Your task to perform on an android device: Open Youtube and go to "Your channel" Image 0: 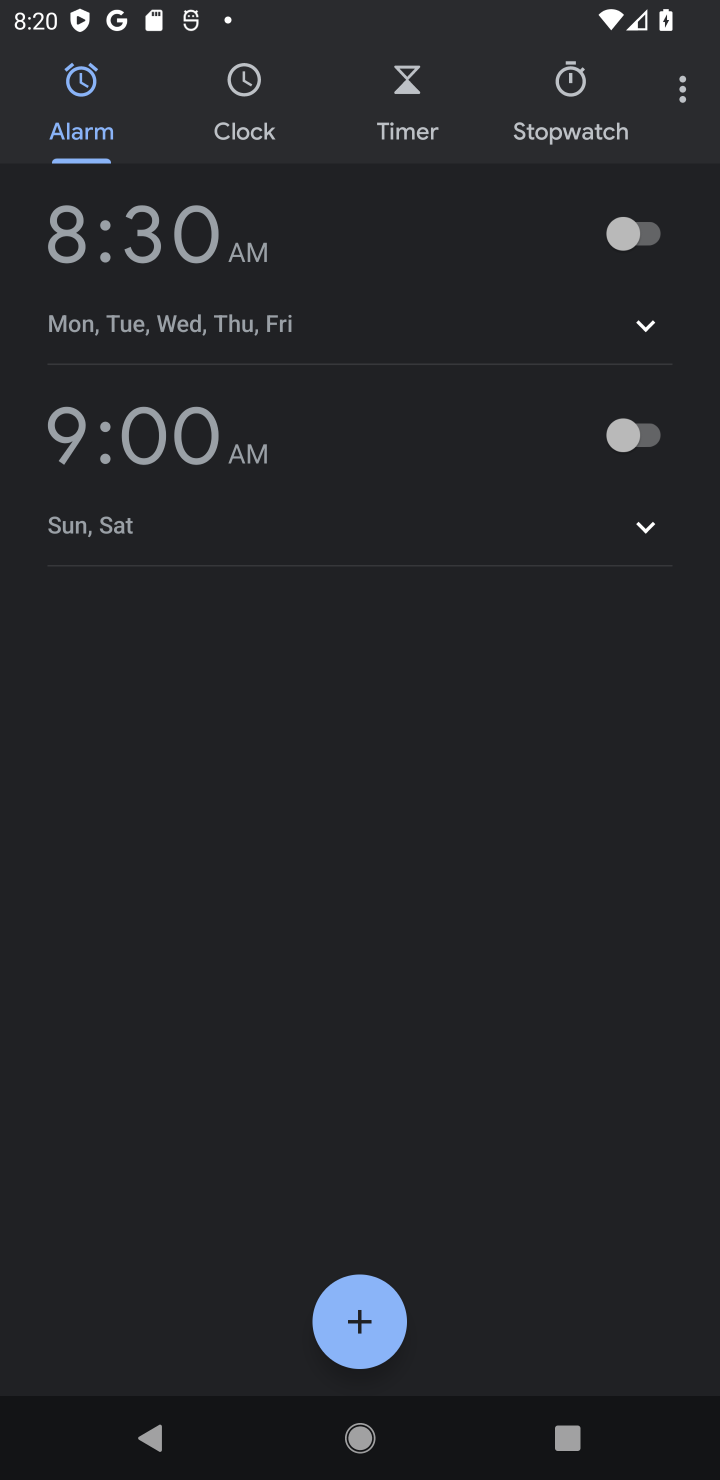
Step 0: press home button
Your task to perform on an android device: Open Youtube and go to "Your channel" Image 1: 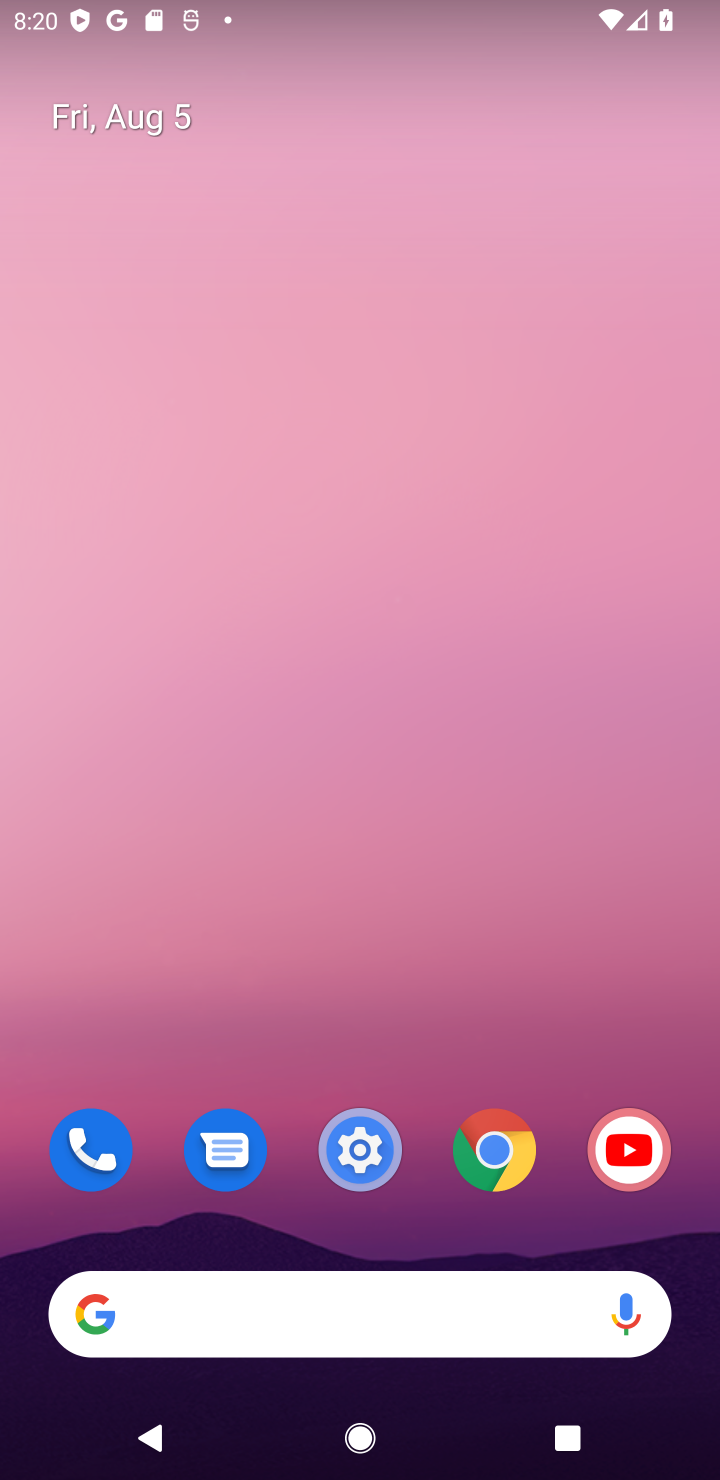
Step 1: drag from (413, 1108) to (427, 520)
Your task to perform on an android device: Open Youtube and go to "Your channel" Image 2: 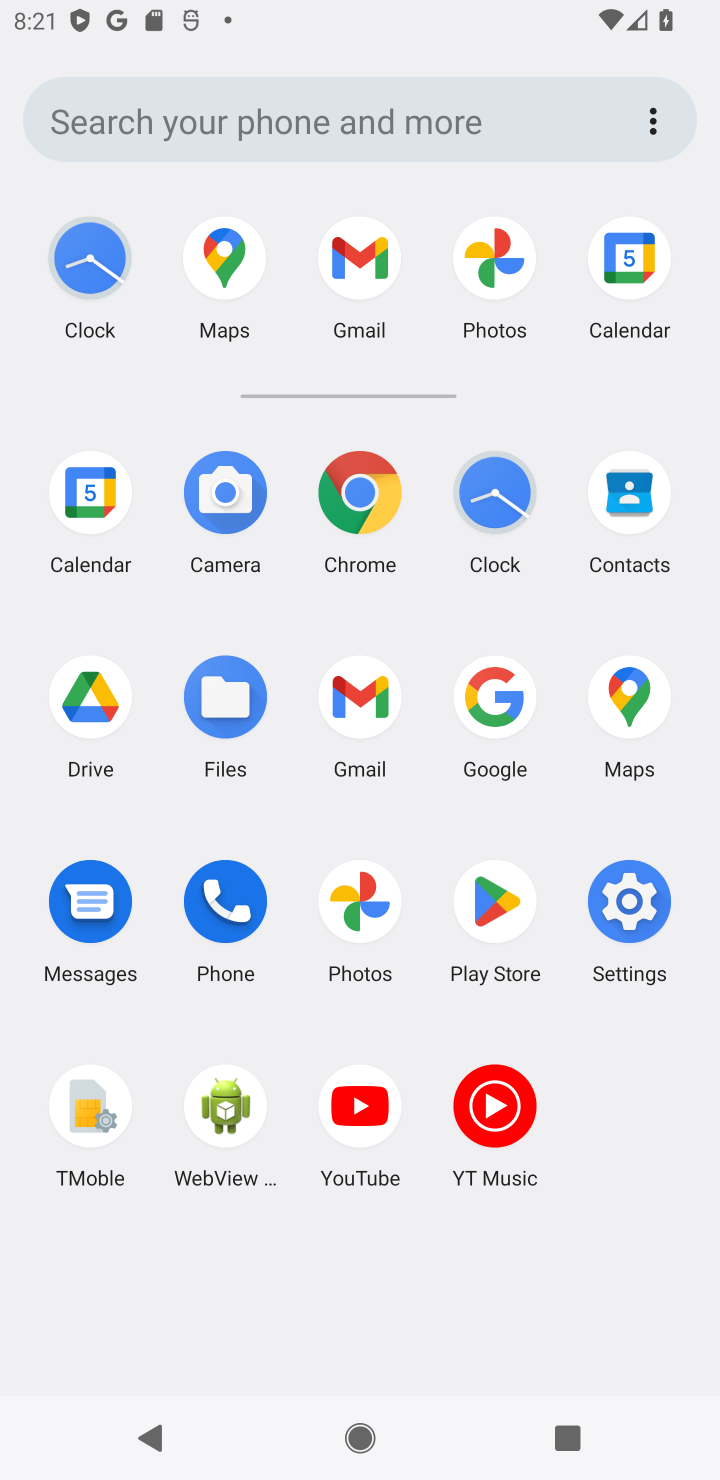
Step 2: click (354, 1120)
Your task to perform on an android device: Open Youtube and go to "Your channel" Image 3: 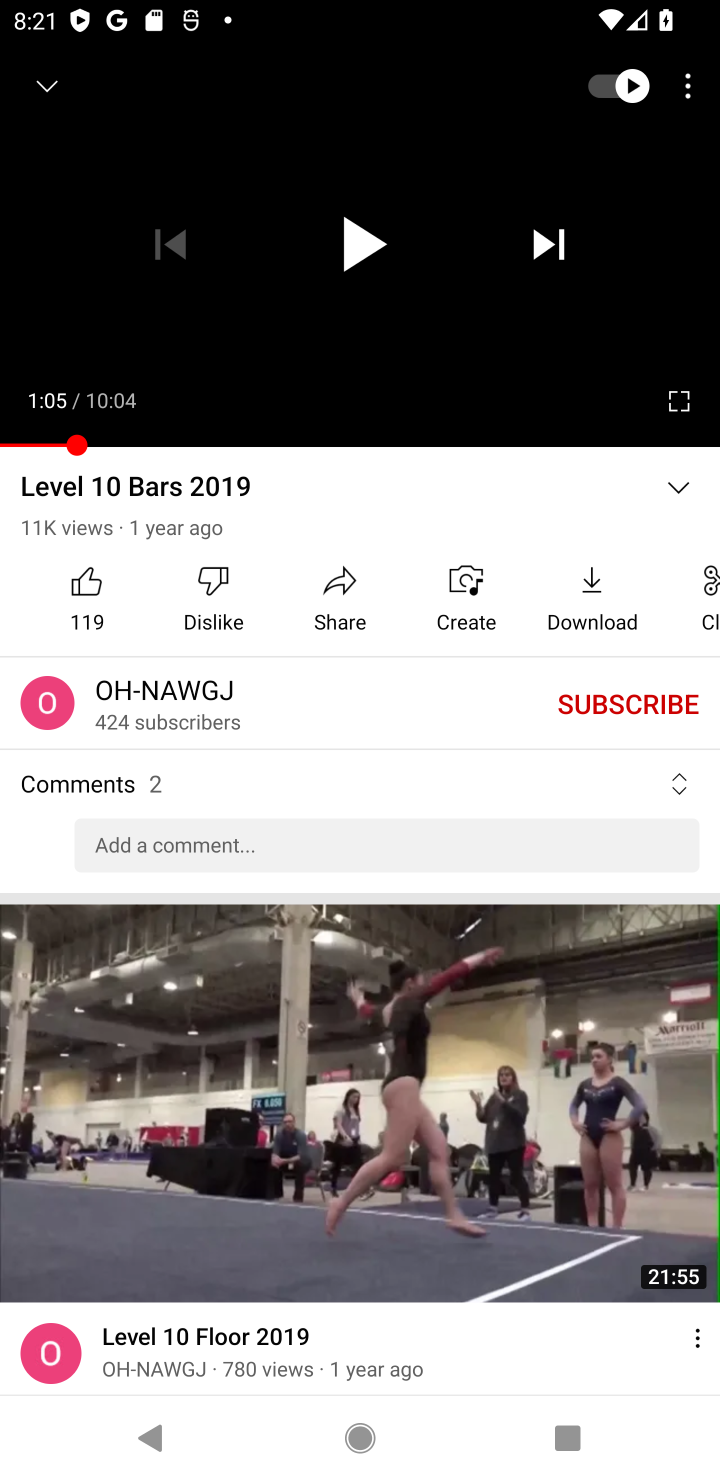
Step 3: press back button
Your task to perform on an android device: Open Youtube and go to "Your channel" Image 4: 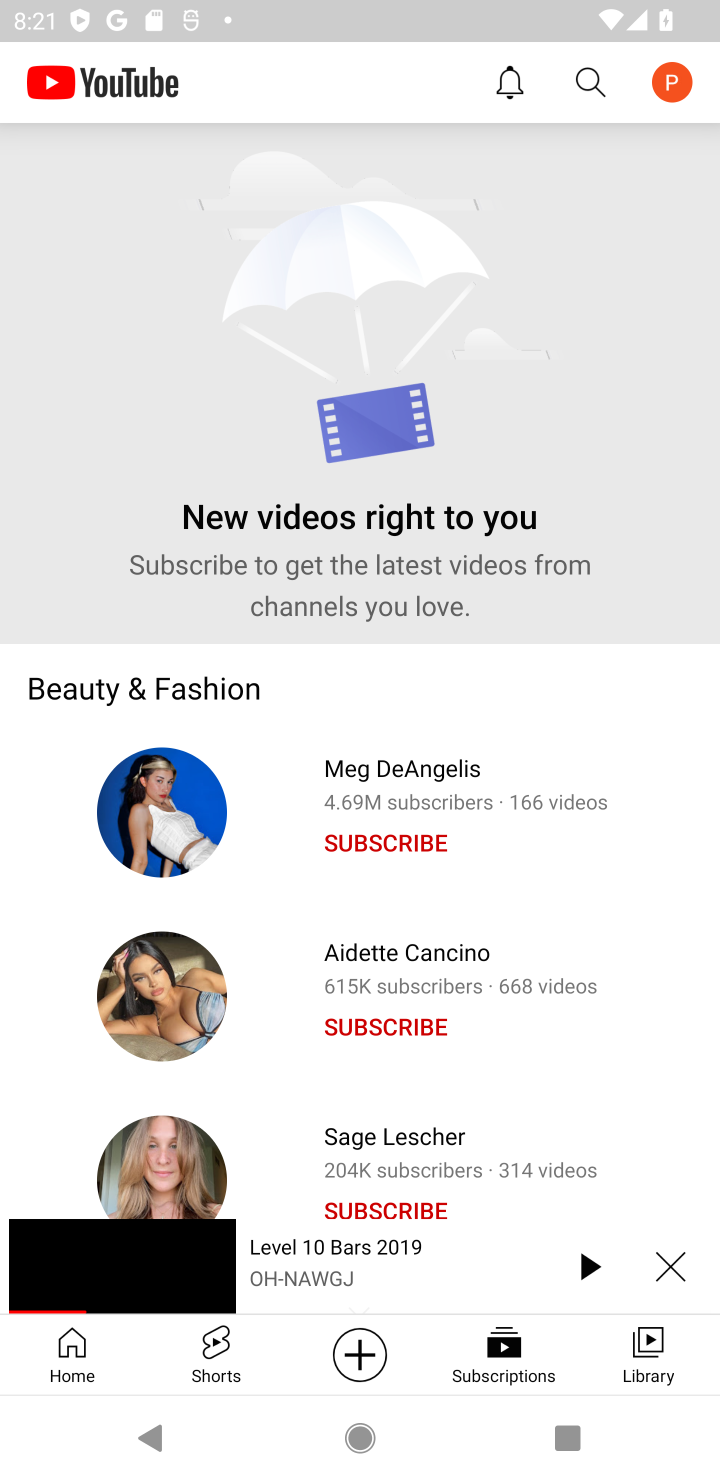
Step 4: click (675, 83)
Your task to perform on an android device: Open Youtube and go to "Your channel" Image 5: 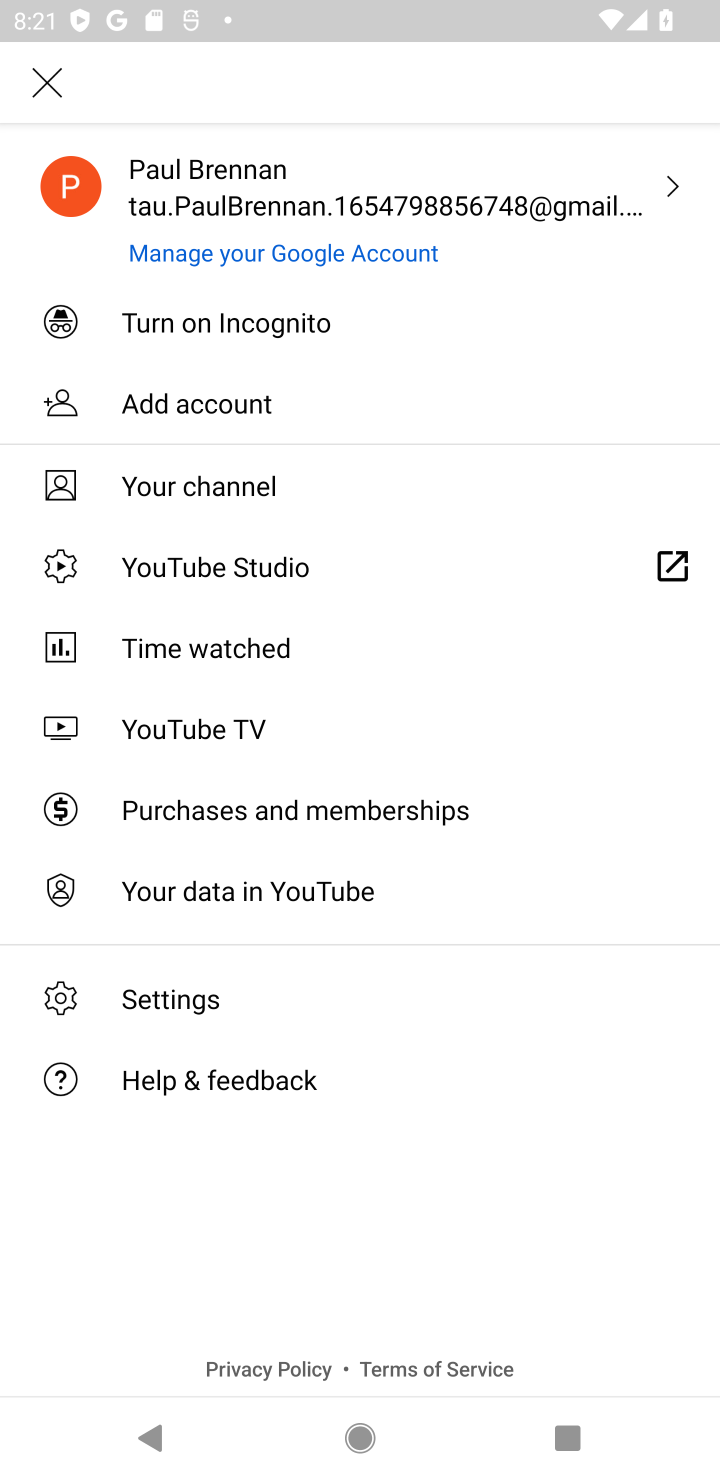
Step 5: click (294, 478)
Your task to perform on an android device: Open Youtube and go to "Your channel" Image 6: 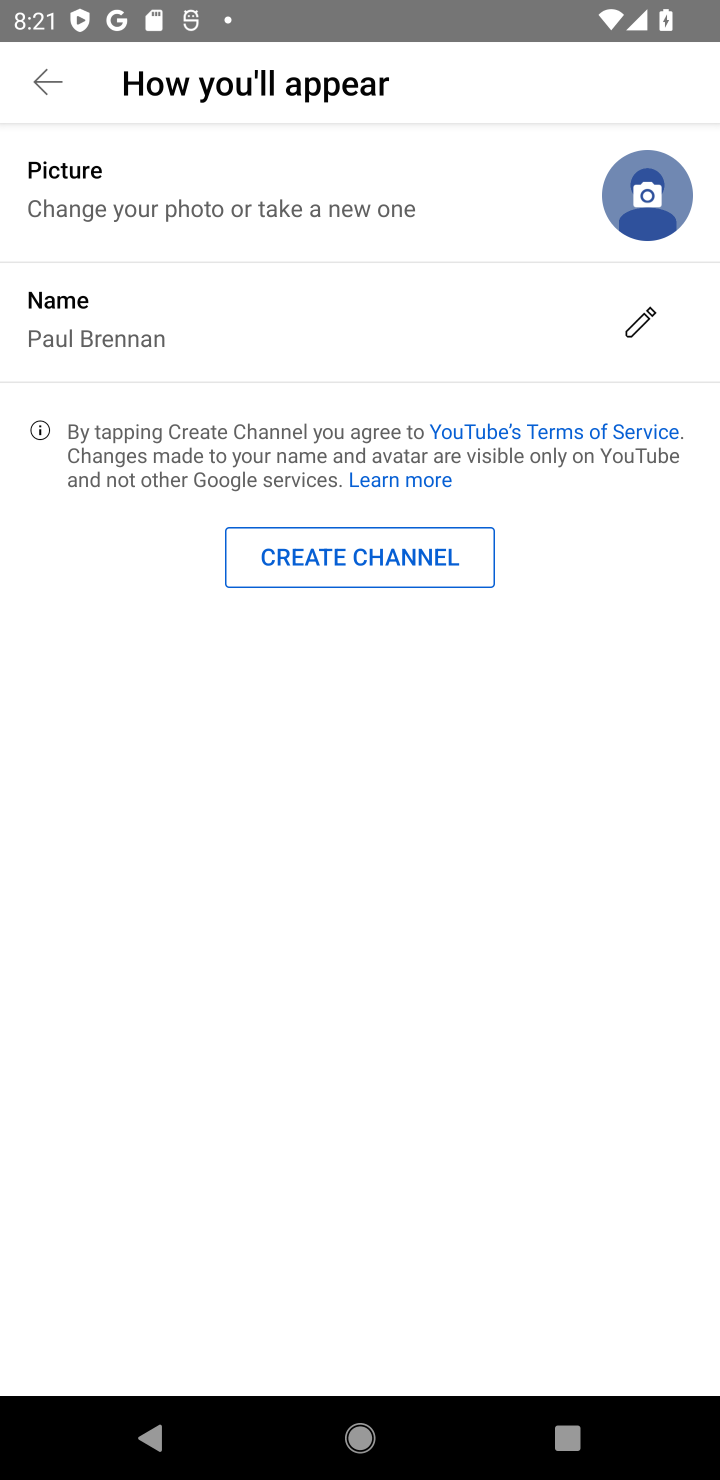
Step 6: task complete